Your task to perform on an android device: Open calendar and show me the fourth week of next month Image 0: 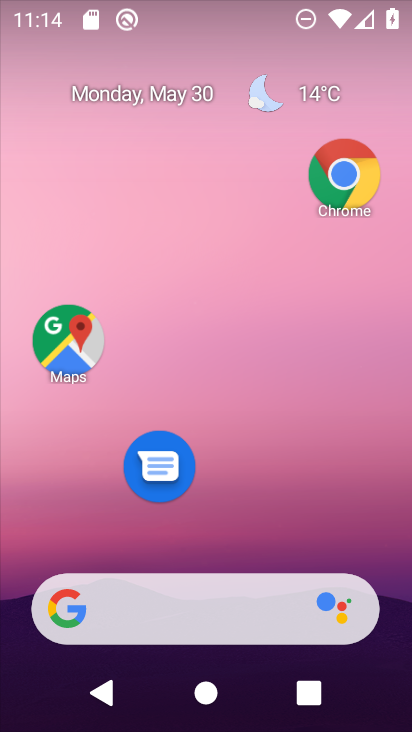
Step 0: drag from (224, 373) to (194, 163)
Your task to perform on an android device: Open calendar and show me the fourth week of next month Image 1: 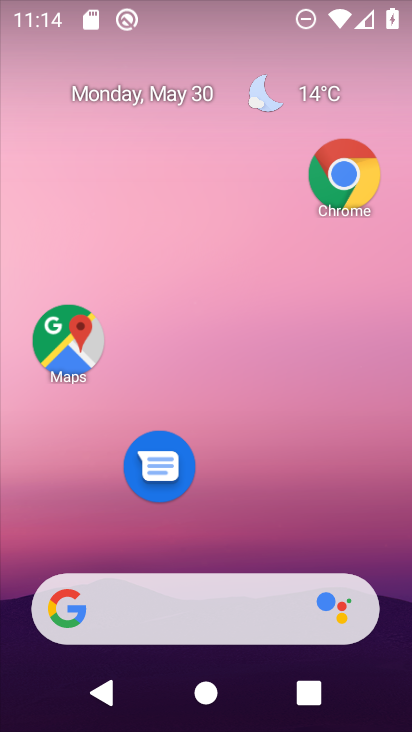
Step 1: drag from (286, 569) to (232, 12)
Your task to perform on an android device: Open calendar and show me the fourth week of next month Image 2: 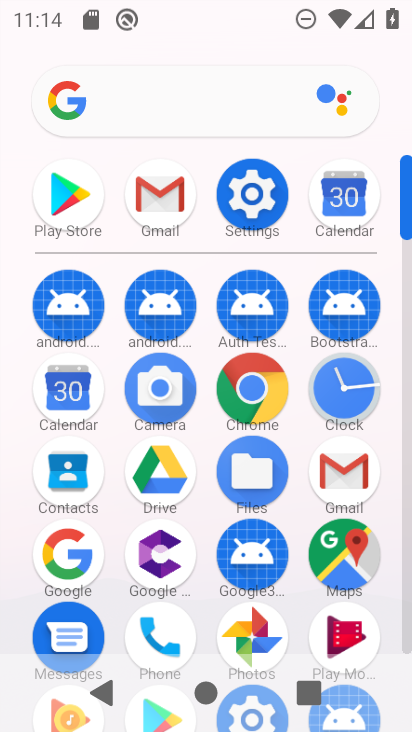
Step 2: click (363, 196)
Your task to perform on an android device: Open calendar and show me the fourth week of next month Image 3: 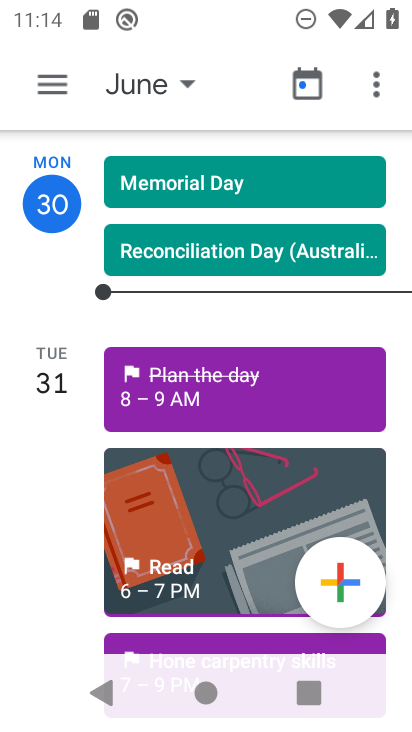
Step 3: click (27, 85)
Your task to perform on an android device: Open calendar and show me the fourth week of next month Image 4: 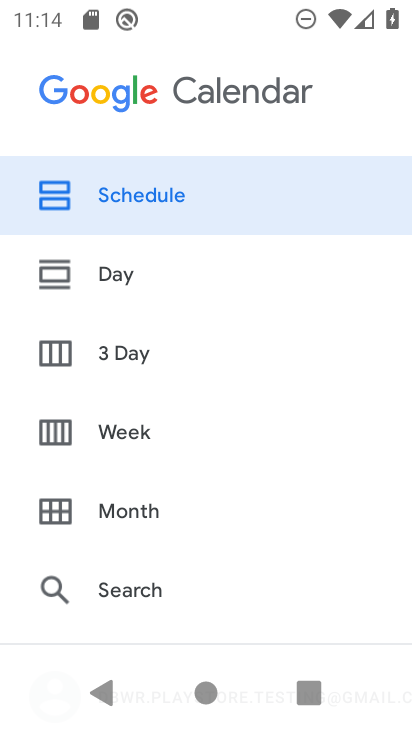
Step 4: click (139, 429)
Your task to perform on an android device: Open calendar and show me the fourth week of next month Image 5: 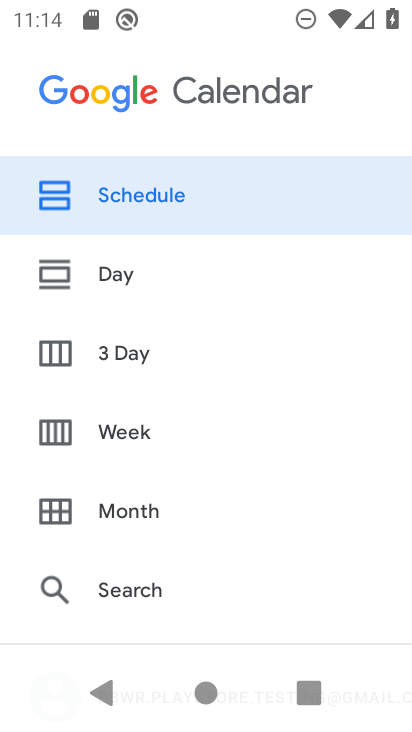
Step 5: click (149, 429)
Your task to perform on an android device: Open calendar and show me the fourth week of next month Image 6: 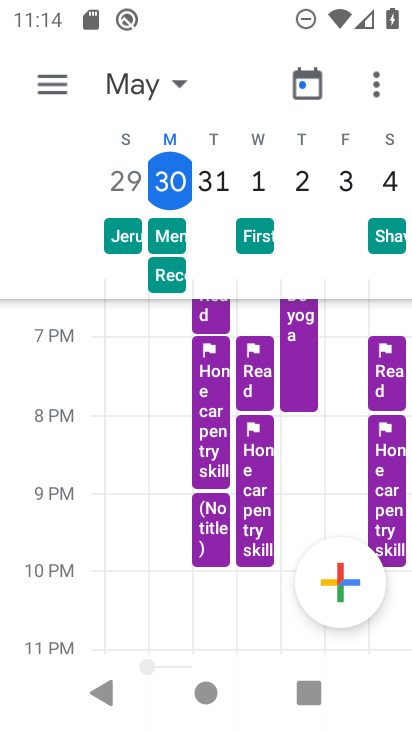
Step 6: task complete